Your task to perform on an android device: Open calendar and show me the first week of next month Image 0: 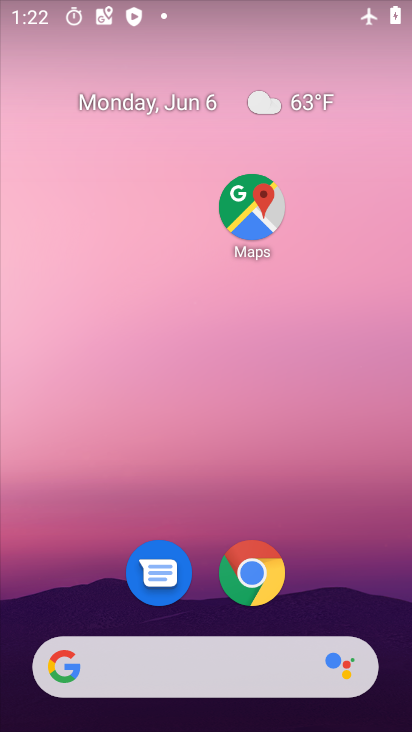
Step 0: drag from (209, 476) to (98, 50)
Your task to perform on an android device: Open calendar and show me the first week of next month Image 1: 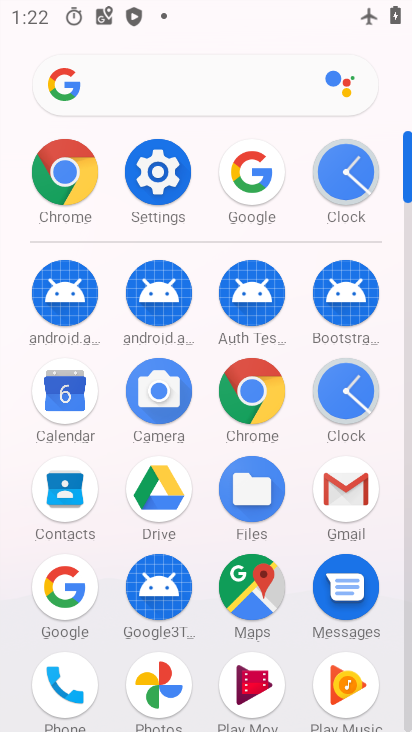
Step 1: click (54, 398)
Your task to perform on an android device: Open calendar and show me the first week of next month Image 2: 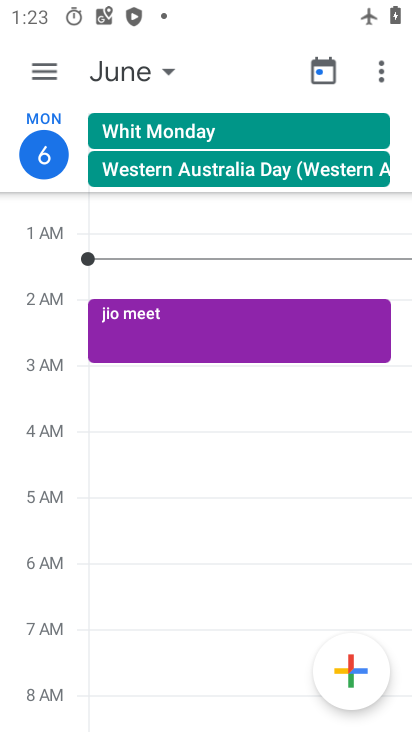
Step 2: click (162, 73)
Your task to perform on an android device: Open calendar and show me the first week of next month Image 3: 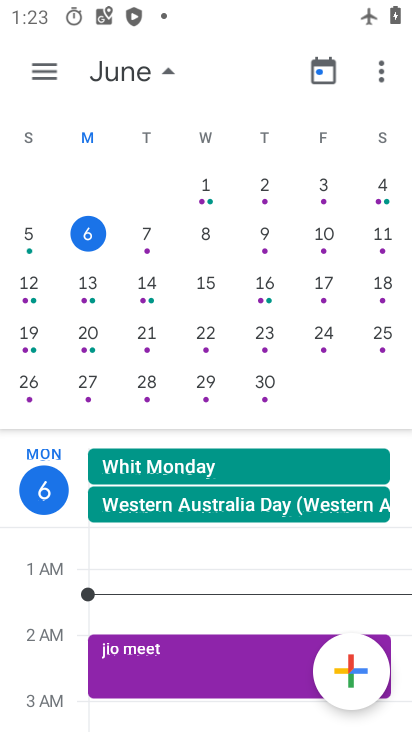
Step 3: drag from (355, 217) to (0, 272)
Your task to perform on an android device: Open calendar and show me the first week of next month Image 4: 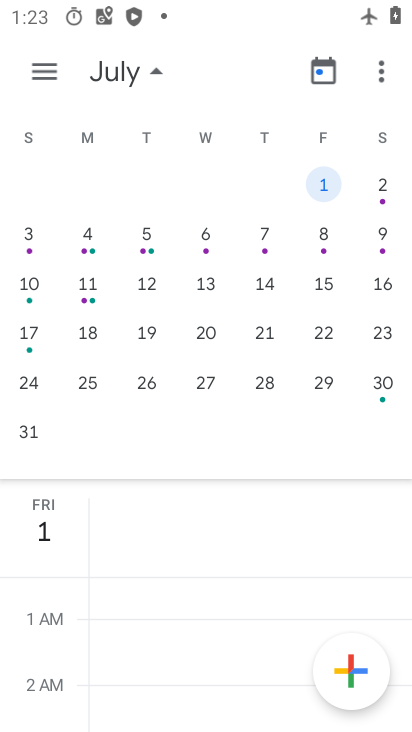
Step 4: click (28, 228)
Your task to perform on an android device: Open calendar and show me the first week of next month Image 5: 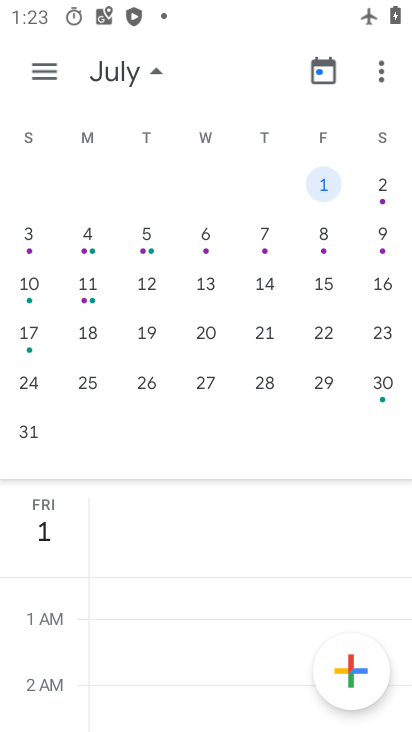
Step 5: click (126, 72)
Your task to perform on an android device: Open calendar and show me the first week of next month Image 6: 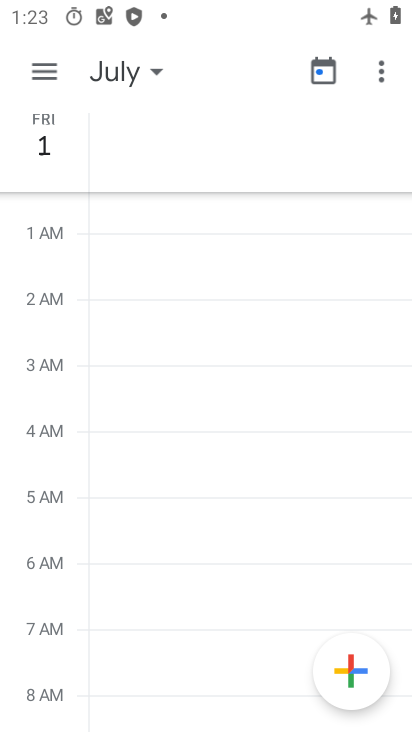
Step 6: click (147, 84)
Your task to perform on an android device: Open calendar and show me the first week of next month Image 7: 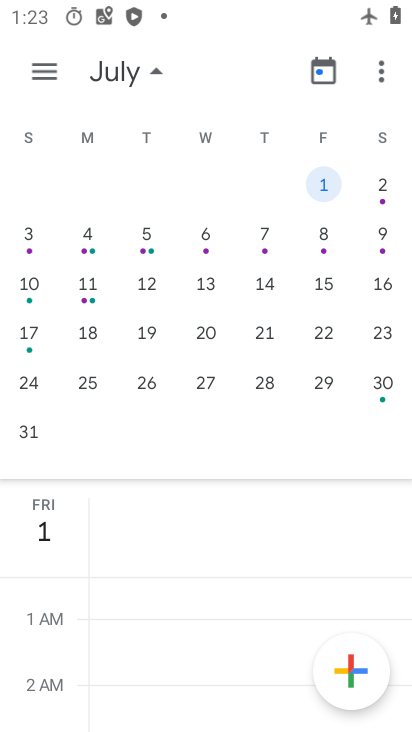
Step 7: click (20, 238)
Your task to perform on an android device: Open calendar and show me the first week of next month Image 8: 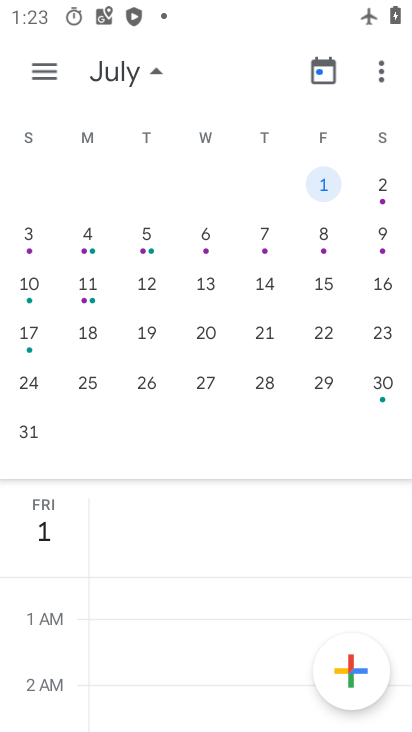
Step 8: click (36, 237)
Your task to perform on an android device: Open calendar and show me the first week of next month Image 9: 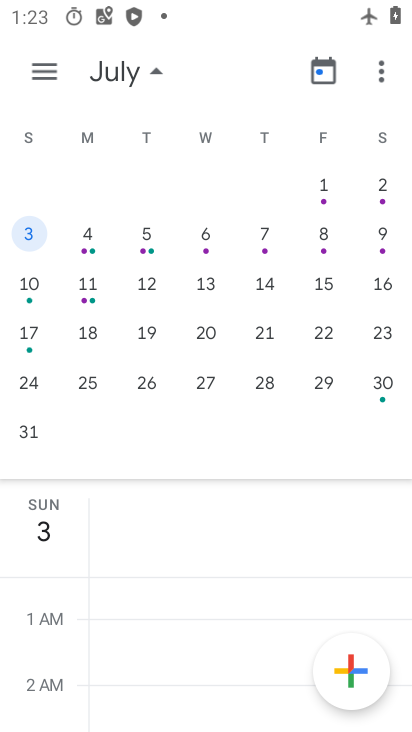
Step 9: click (171, 63)
Your task to perform on an android device: Open calendar and show me the first week of next month Image 10: 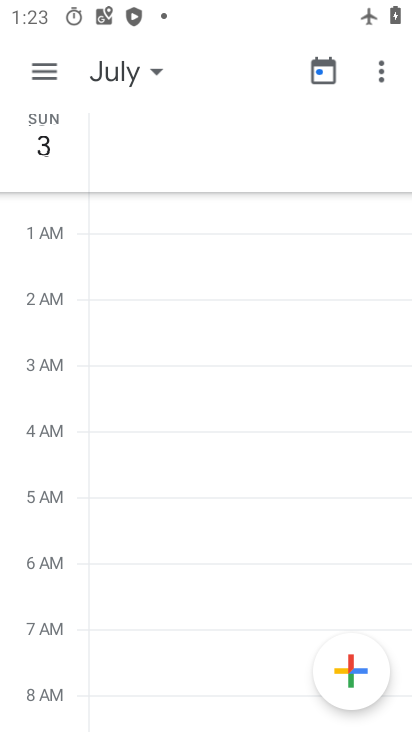
Step 10: task complete